Your task to perform on an android device: Is it going to rain today? Image 0: 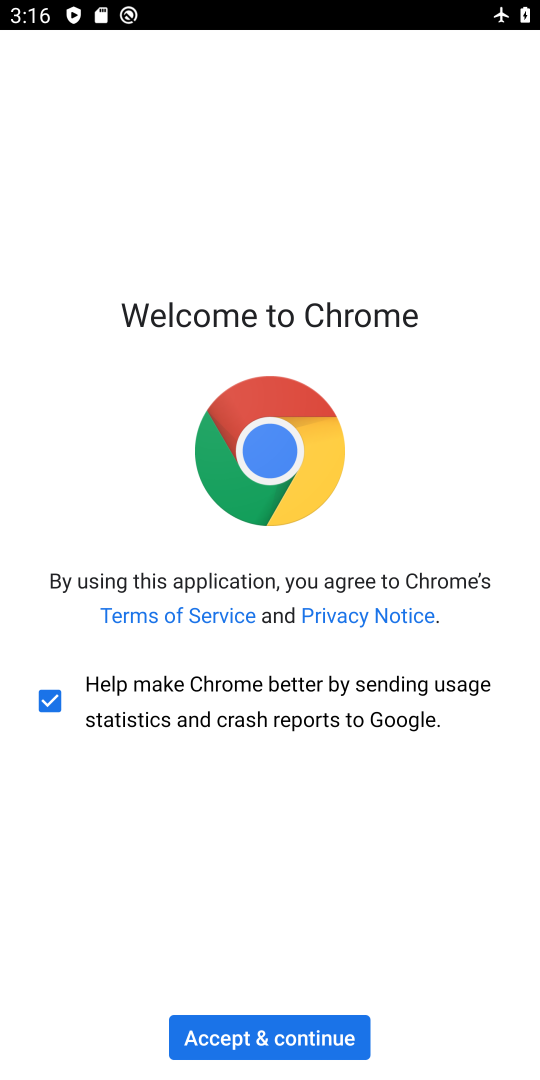
Step 0: click (274, 1031)
Your task to perform on an android device: Is it going to rain today? Image 1: 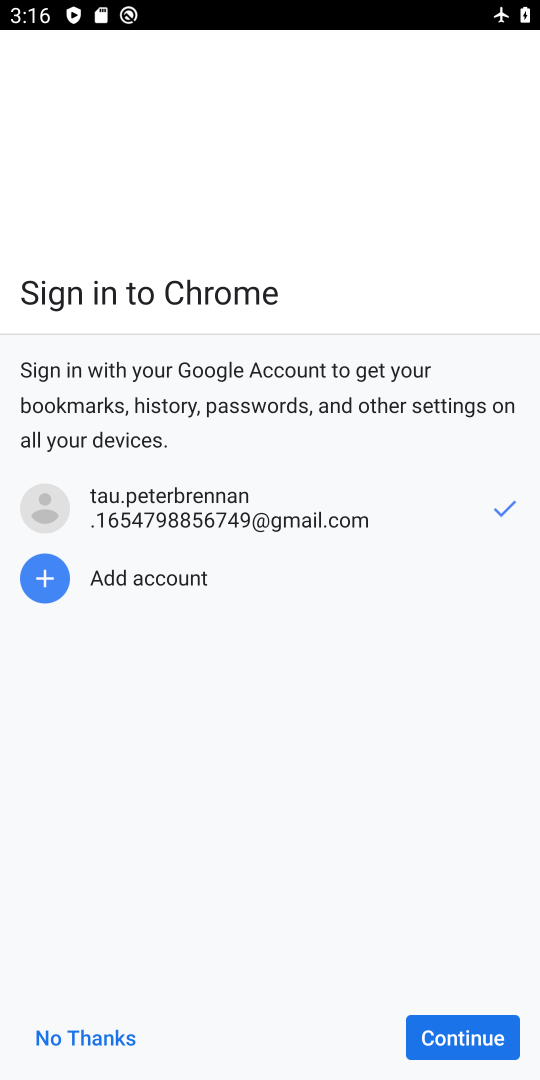
Step 1: click (61, 1033)
Your task to perform on an android device: Is it going to rain today? Image 2: 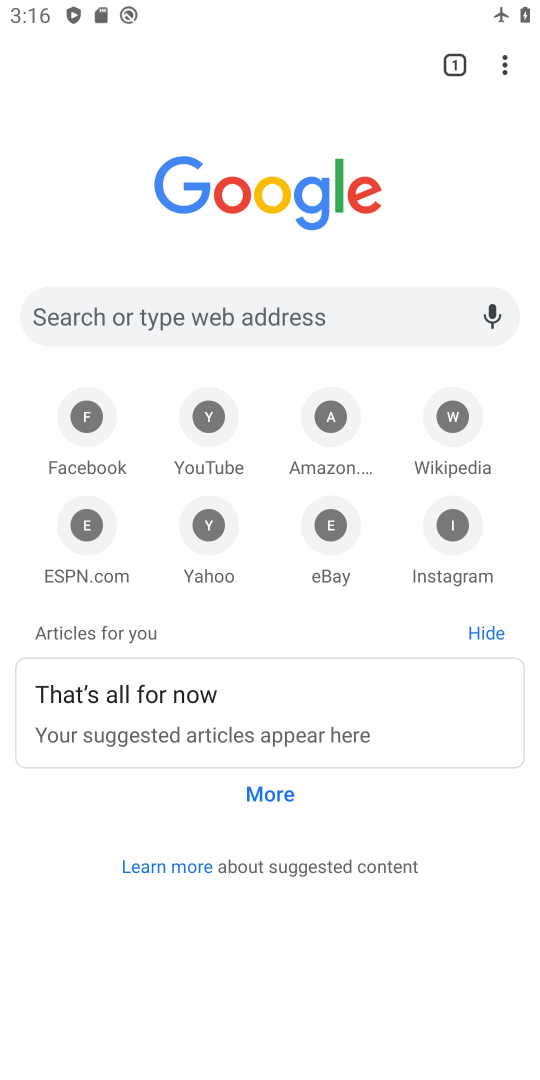
Step 2: press home button
Your task to perform on an android device: Is it going to rain today? Image 3: 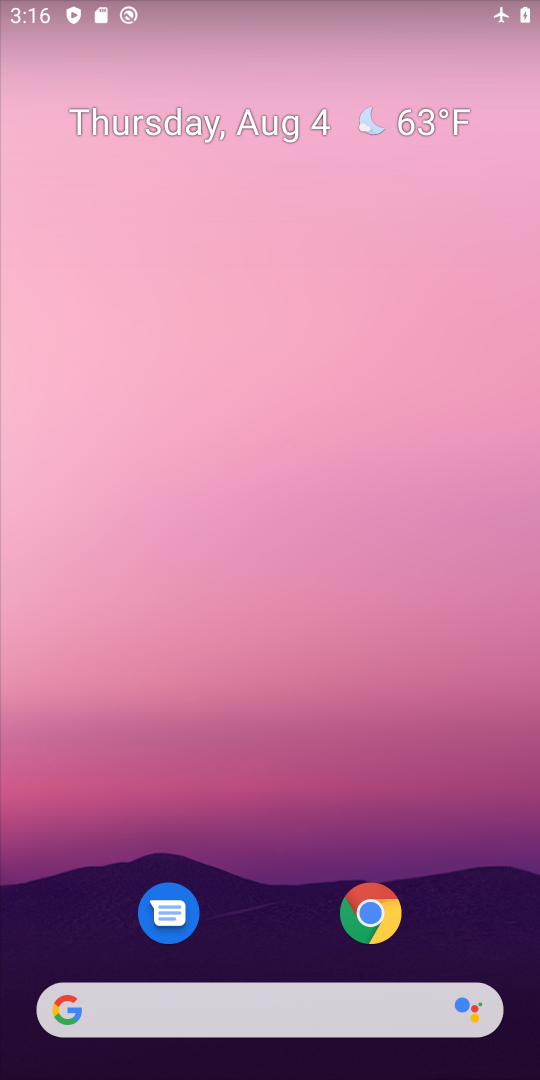
Step 3: drag from (269, 1005) to (400, 38)
Your task to perform on an android device: Is it going to rain today? Image 4: 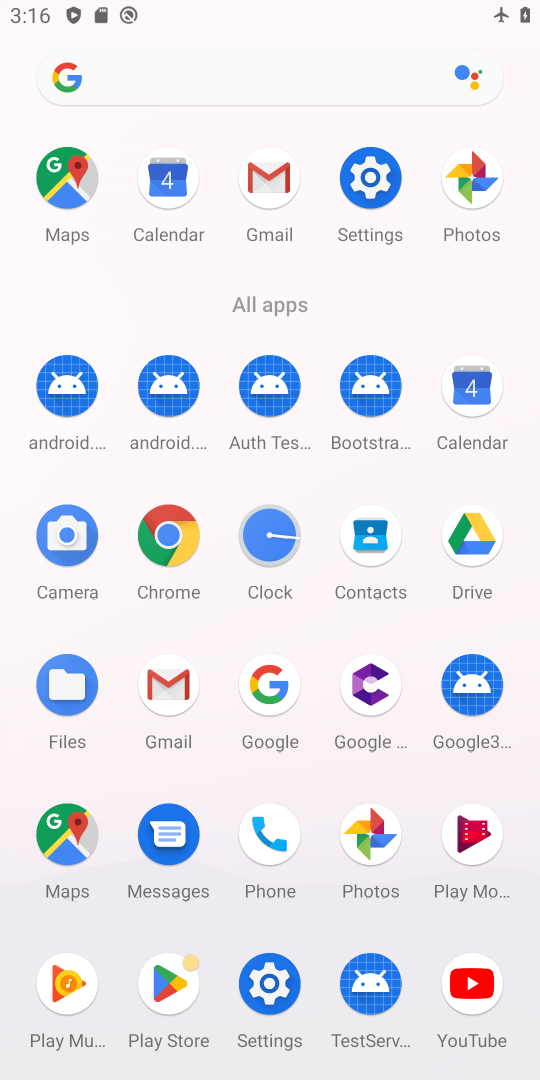
Step 4: click (257, 672)
Your task to perform on an android device: Is it going to rain today? Image 5: 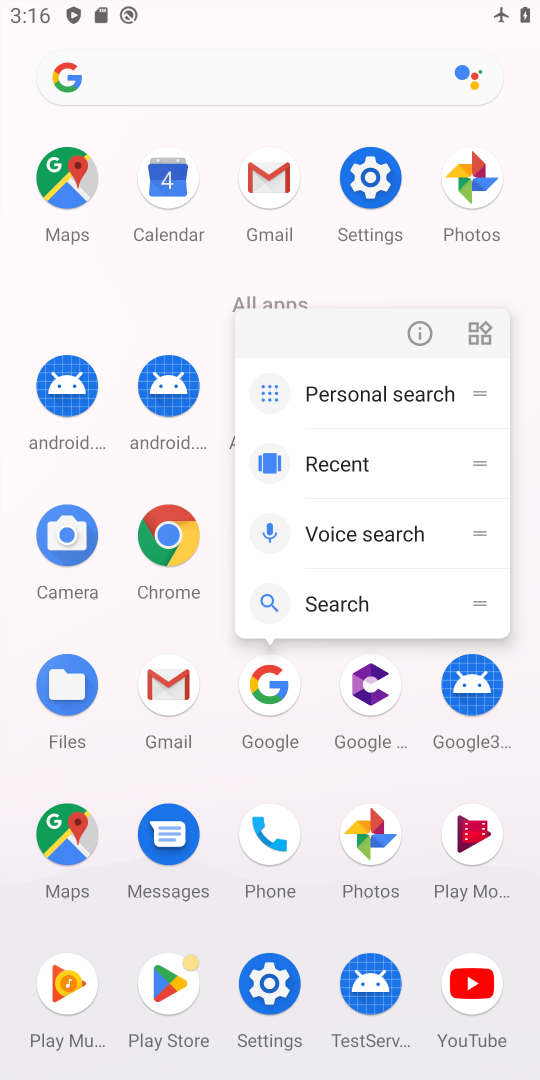
Step 5: click (265, 679)
Your task to perform on an android device: Is it going to rain today? Image 6: 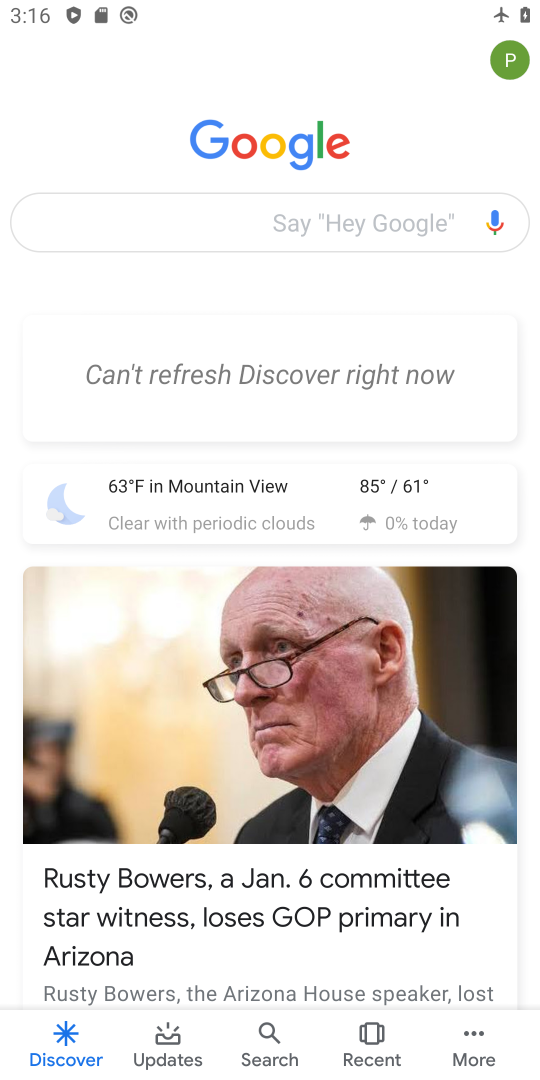
Step 6: click (278, 227)
Your task to perform on an android device: Is it going to rain today? Image 7: 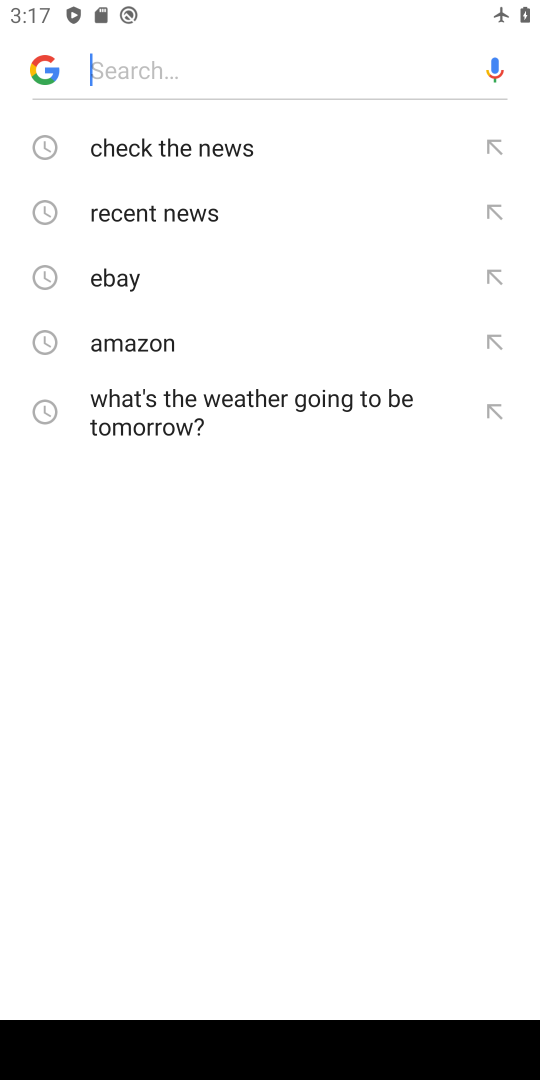
Step 7: type "is it going to rain today"
Your task to perform on an android device: Is it going to rain today? Image 8: 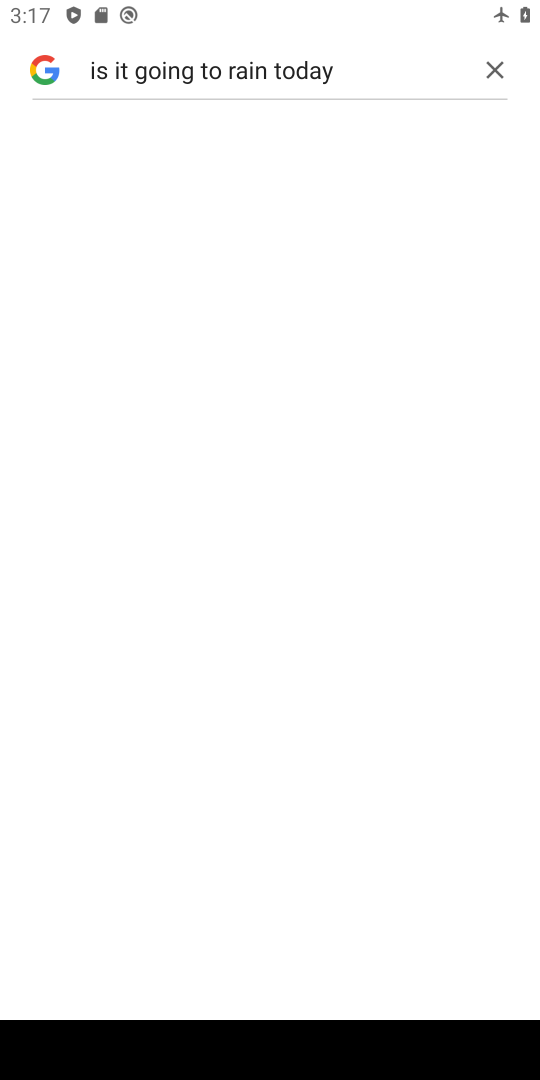
Step 8: task complete